Your task to perform on an android device: Open display settings Image 0: 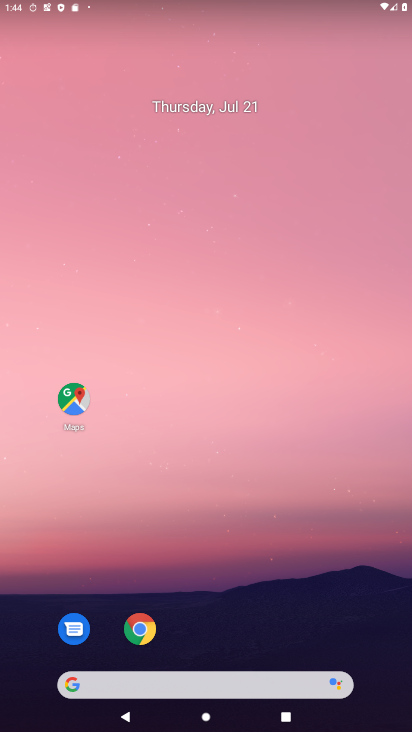
Step 0: drag from (92, 542) to (338, 193)
Your task to perform on an android device: Open display settings Image 1: 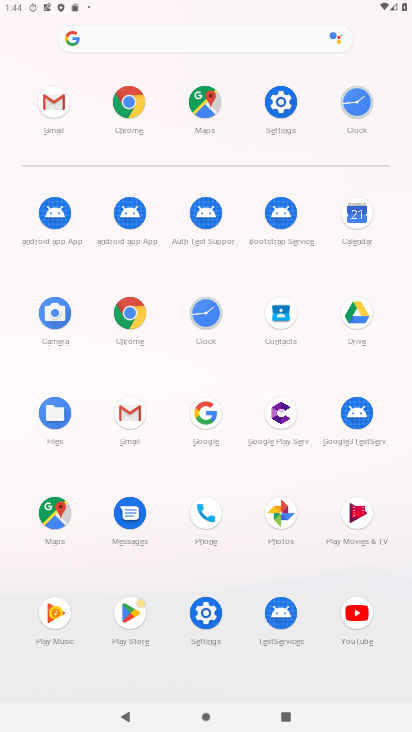
Step 1: click (212, 633)
Your task to perform on an android device: Open display settings Image 2: 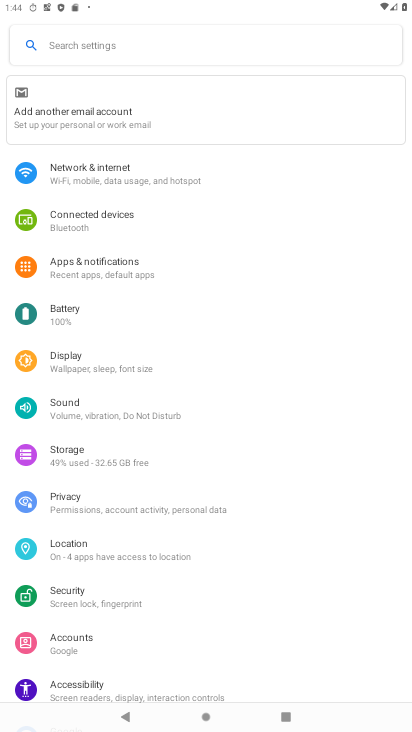
Step 2: click (83, 362)
Your task to perform on an android device: Open display settings Image 3: 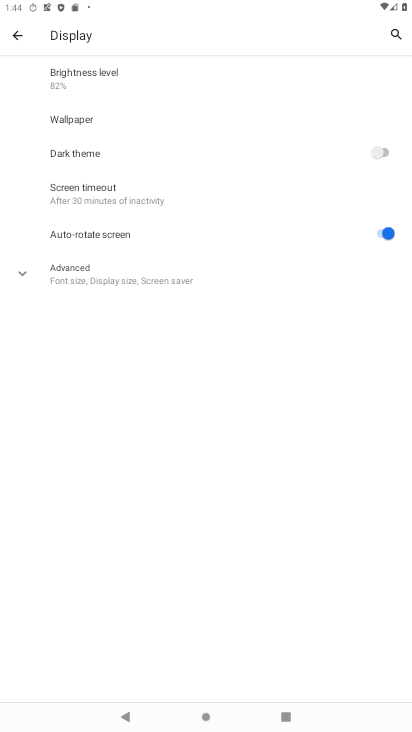
Step 3: task complete